Your task to perform on an android device: turn on priority inbox in the gmail app Image 0: 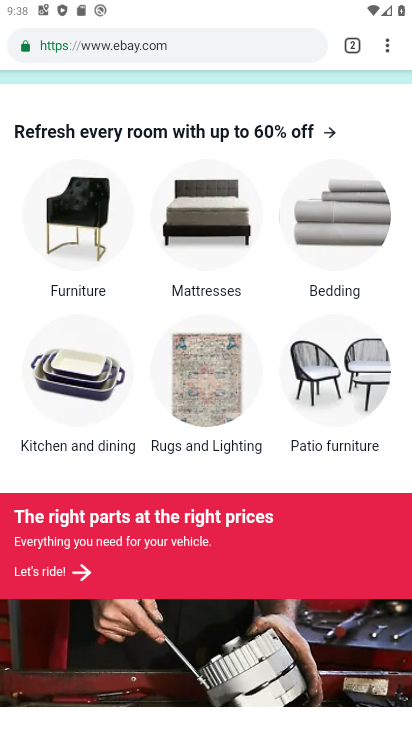
Step 0: press home button
Your task to perform on an android device: turn on priority inbox in the gmail app Image 1: 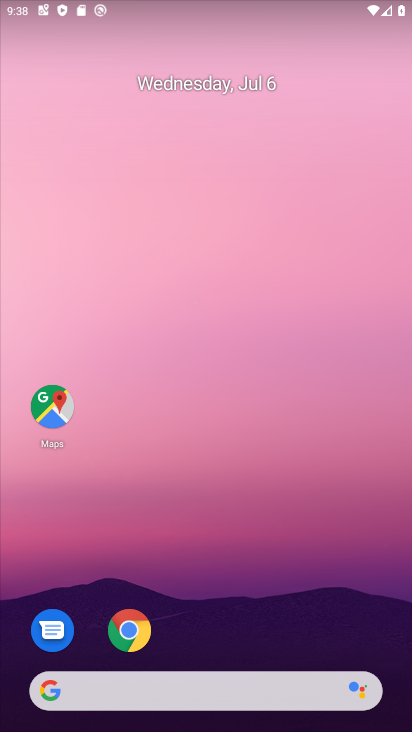
Step 1: drag from (392, 630) to (330, 38)
Your task to perform on an android device: turn on priority inbox in the gmail app Image 2: 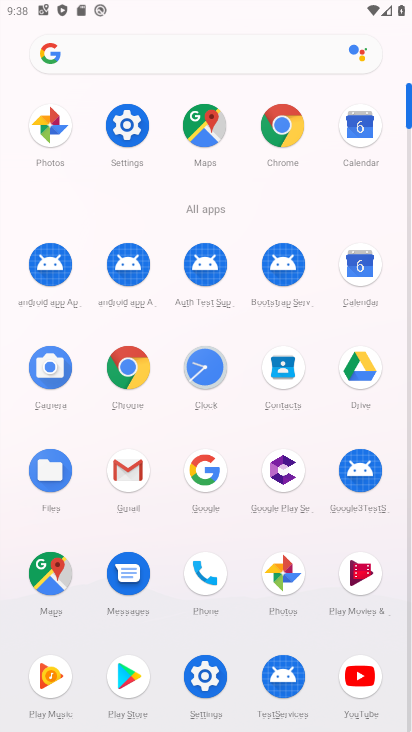
Step 2: click (127, 469)
Your task to perform on an android device: turn on priority inbox in the gmail app Image 3: 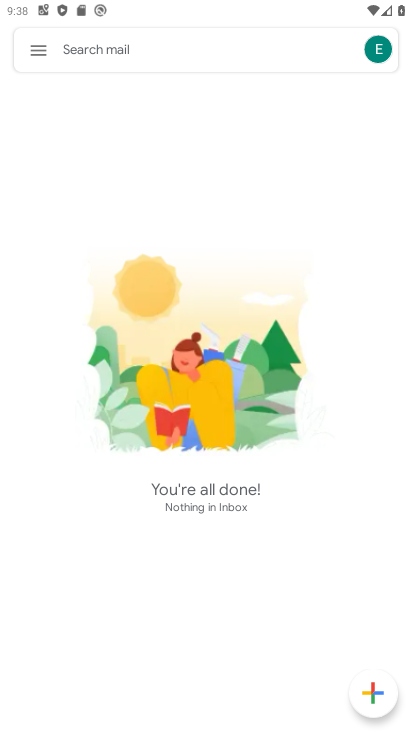
Step 3: click (35, 52)
Your task to perform on an android device: turn on priority inbox in the gmail app Image 4: 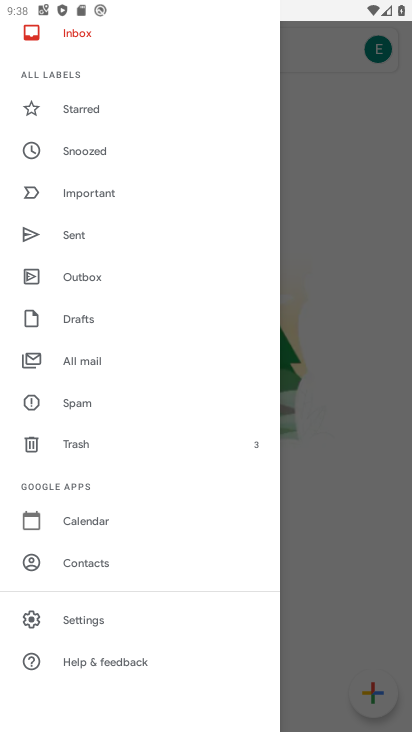
Step 4: click (84, 616)
Your task to perform on an android device: turn on priority inbox in the gmail app Image 5: 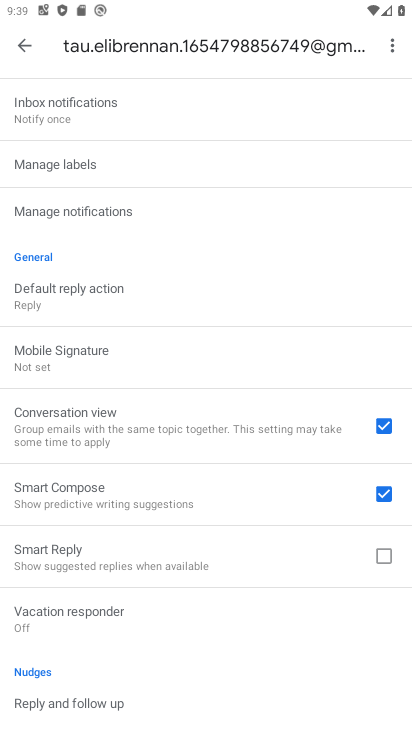
Step 5: drag from (206, 190) to (212, 473)
Your task to perform on an android device: turn on priority inbox in the gmail app Image 6: 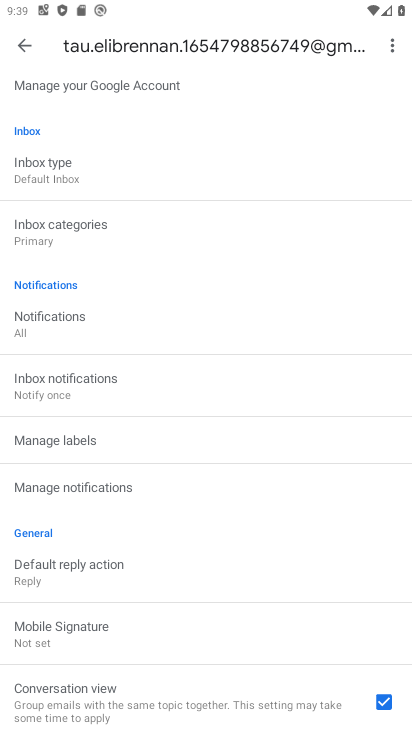
Step 6: drag from (197, 233) to (194, 443)
Your task to perform on an android device: turn on priority inbox in the gmail app Image 7: 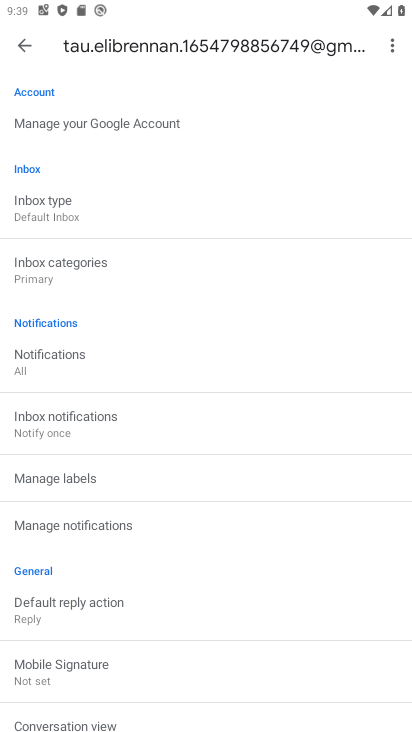
Step 7: click (35, 202)
Your task to perform on an android device: turn on priority inbox in the gmail app Image 8: 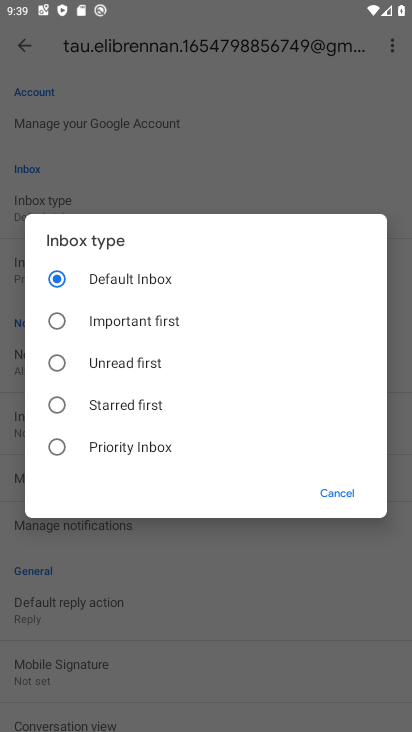
Step 8: click (54, 449)
Your task to perform on an android device: turn on priority inbox in the gmail app Image 9: 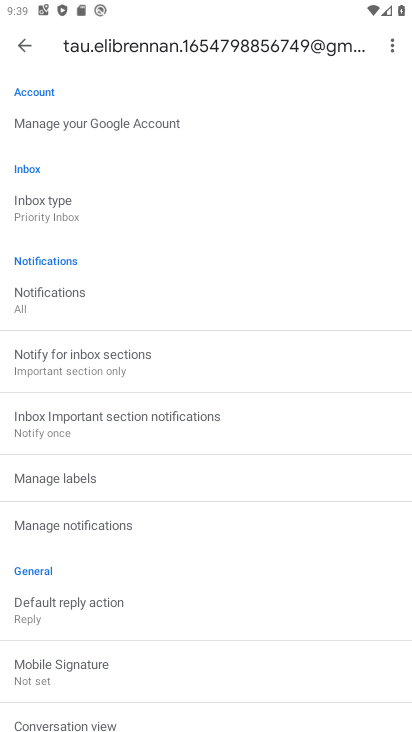
Step 9: task complete